Your task to perform on an android device: turn on priority inbox in the gmail app Image 0: 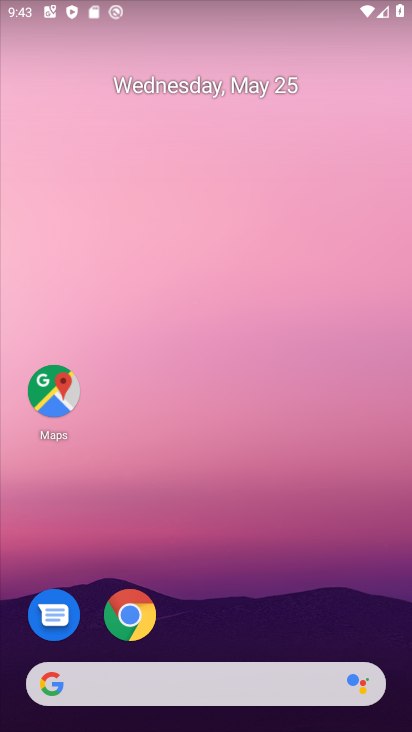
Step 0: drag from (287, 570) to (317, 81)
Your task to perform on an android device: turn on priority inbox in the gmail app Image 1: 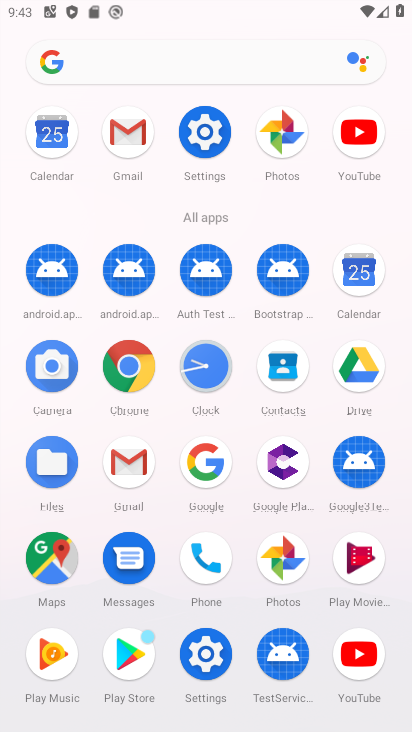
Step 1: click (129, 127)
Your task to perform on an android device: turn on priority inbox in the gmail app Image 2: 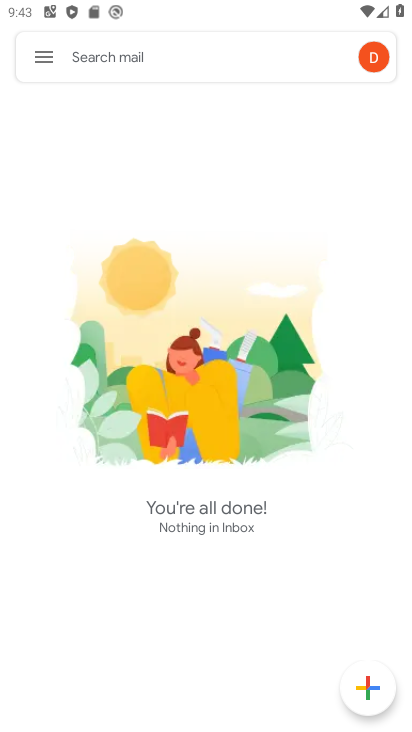
Step 2: click (47, 54)
Your task to perform on an android device: turn on priority inbox in the gmail app Image 3: 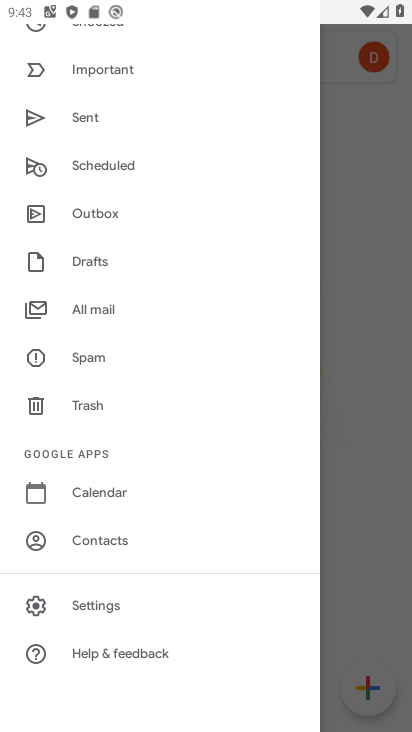
Step 3: click (111, 589)
Your task to perform on an android device: turn on priority inbox in the gmail app Image 4: 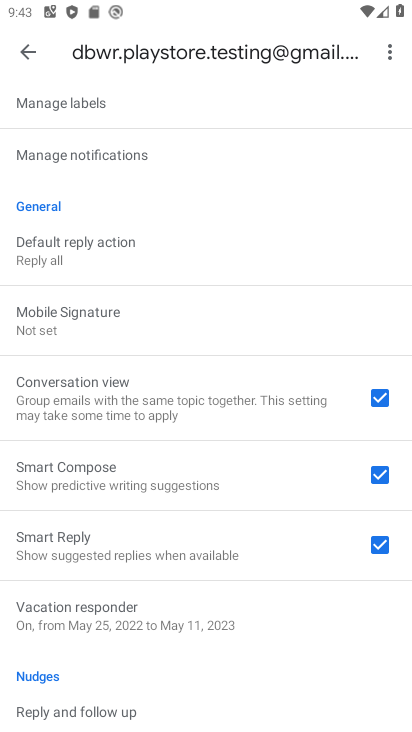
Step 4: drag from (192, 214) to (185, 646)
Your task to perform on an android device: turn on priority inbox in the gmail app Image 5: 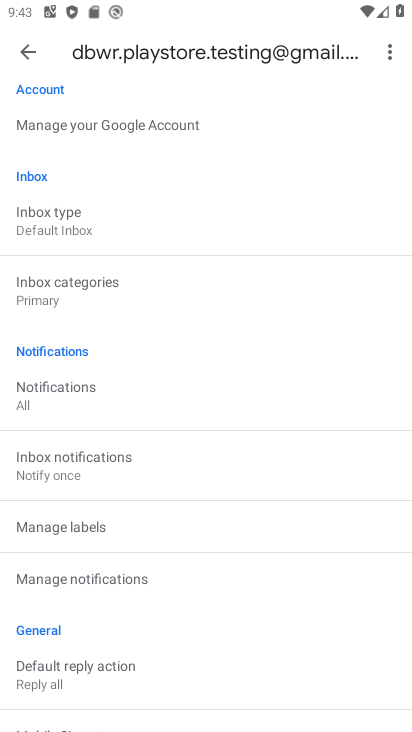
Step 5: click (63, 217)
Your task to perform on an android device: turn on priority inbox in the gmail app Image 6: 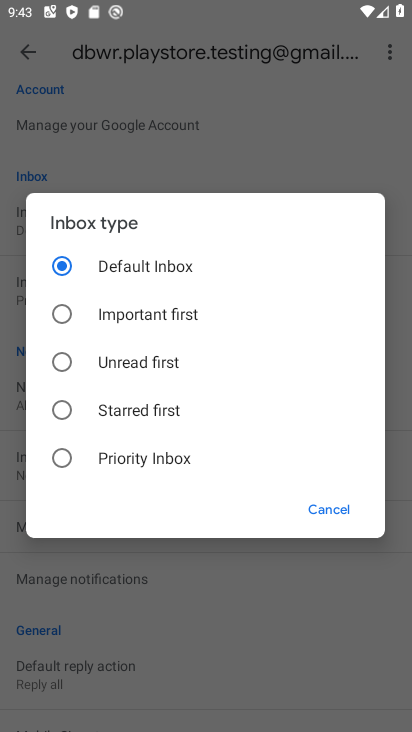
Step 6: click (67, 450)
Your task to perform on an android device: turn on priority inbox in the gmail app Image 7: 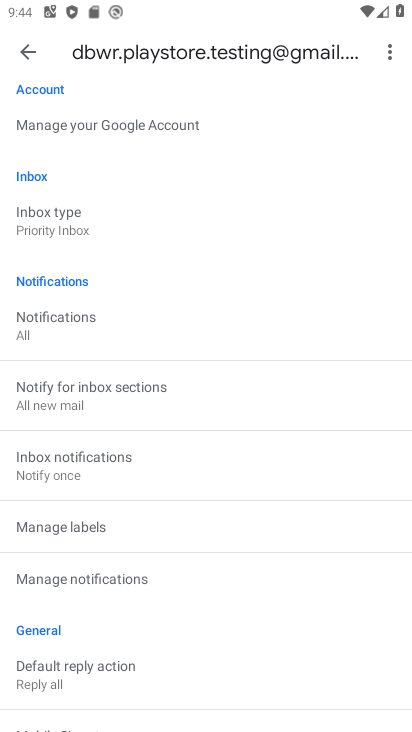
Step 7: task complete